Your task to perform on an android device: Open Yahoo.com Image 0: 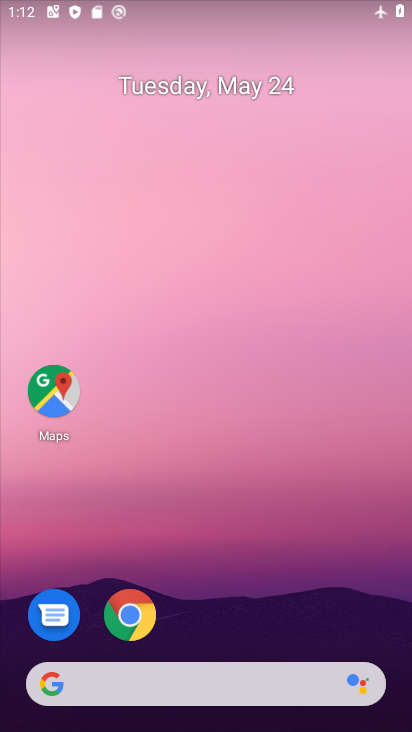
Step 0: click (138, 604)
Your task to perform on an android device: Open Yahoo.com Image 1: 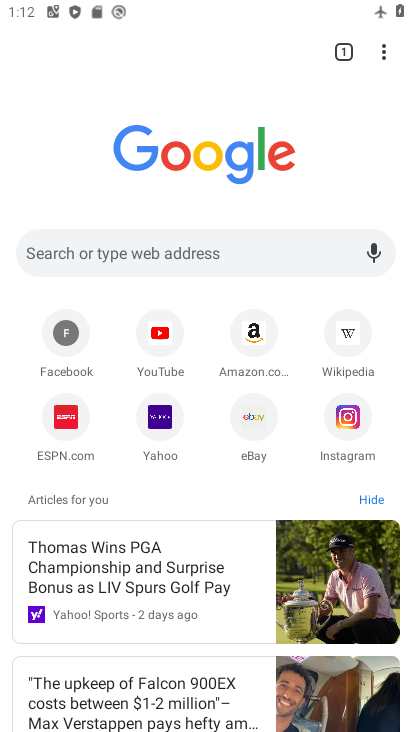
Step 1: click (146, 404)
Your task to perform on an android device: Open Yahoo.com Image 2: 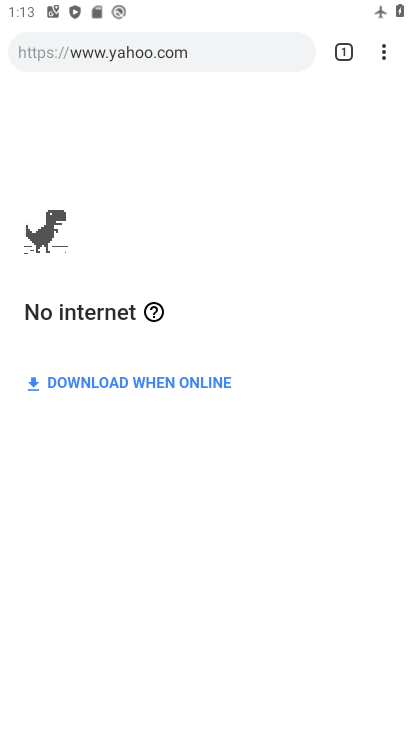
Step 2: drag from (366, 5) to (340, 506)
Your task to perform on an android device: Open Yahoo.com Image 3: 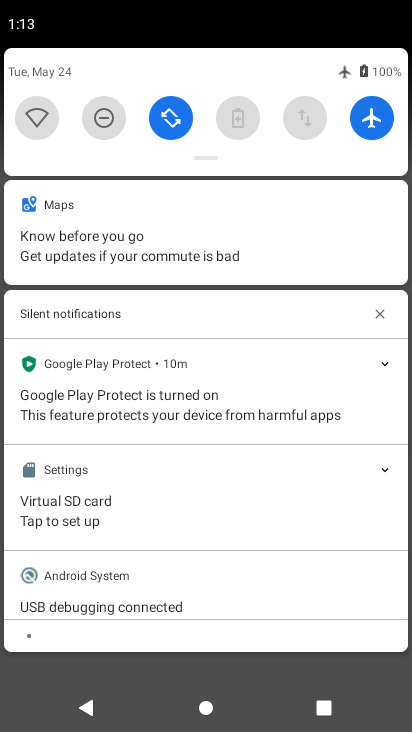
Step 3: click (375, 107)
Your task to perform on an android device: Open Yahoo.com Image 4: 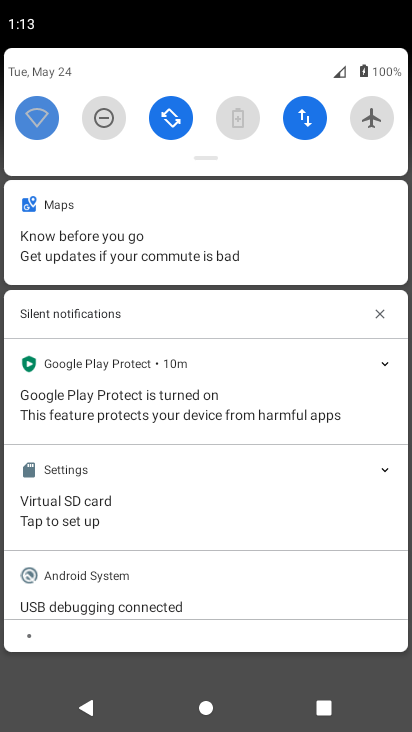
Step 4: click (248, 690)
Your task to perform on an android device: Open Yahoo.com Image 5: 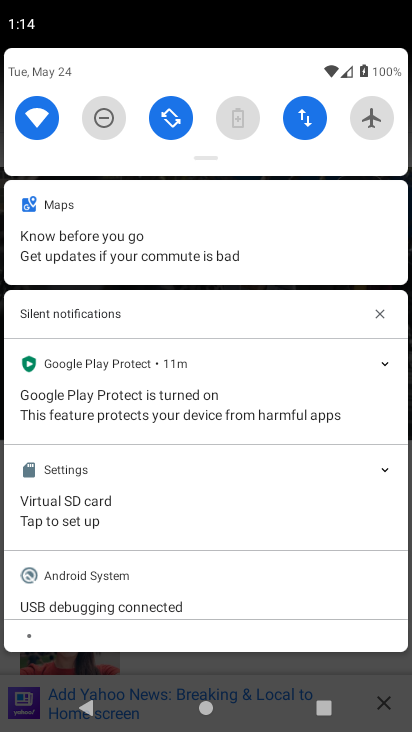
Step 5: click (149, 665)
Your task to perform on an android device: Open Yahoo.com Image 6: 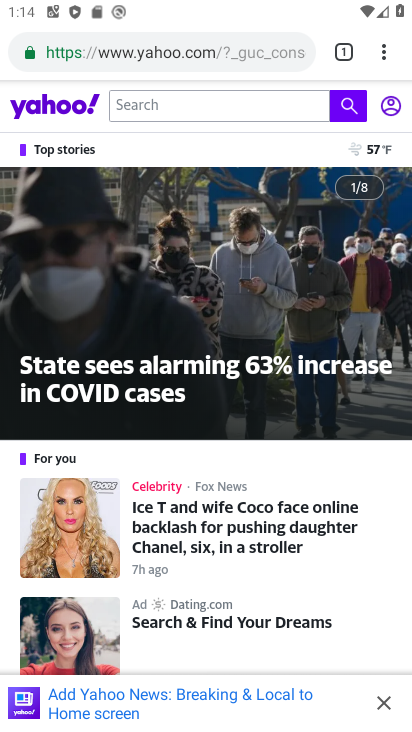
Step 6: task complete